Your task to perform on an android device: toggle wifi Image 0: 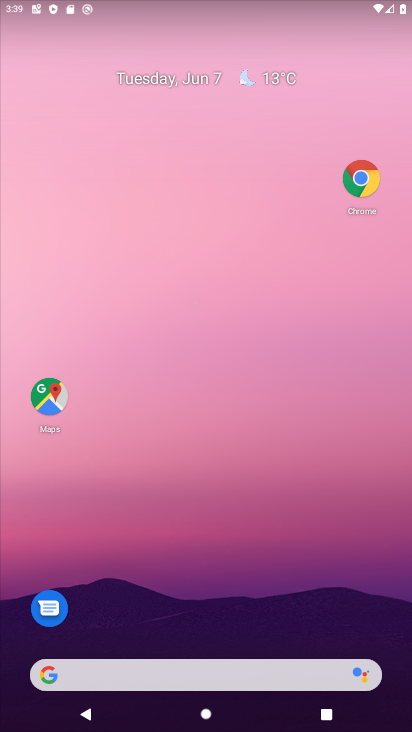
Step 0: drag from (166, 641) to (262, 106)
Your task to perform on an android device: toggle wifi Image 1: 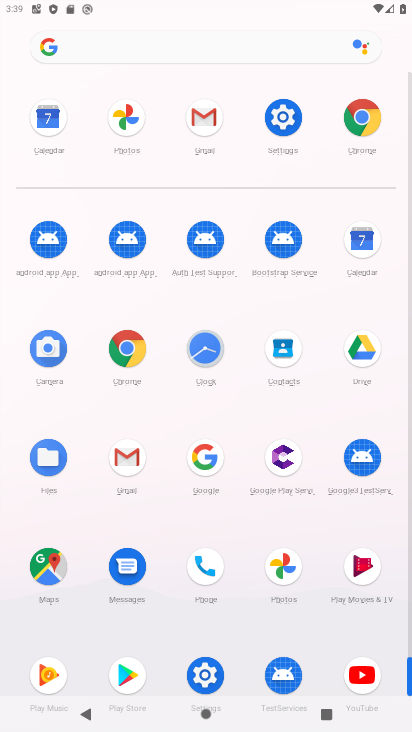
Step 1: click (222, 674)
Your task to perform on an android device: toggle wifi Image 2: 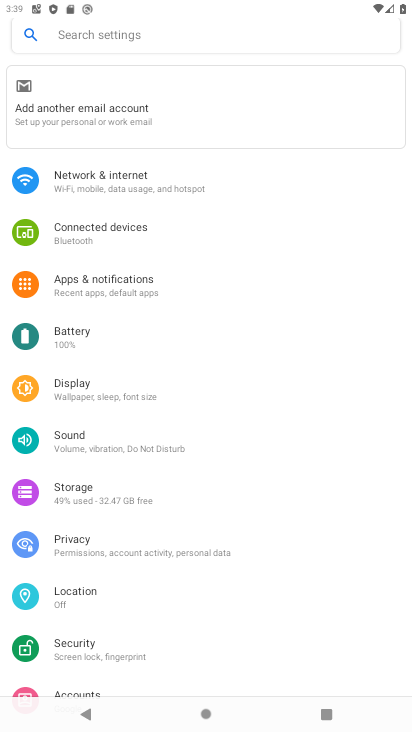
Step 2: click (168, 181)
Your task to perform on an android device: toggle wifi Image 3: 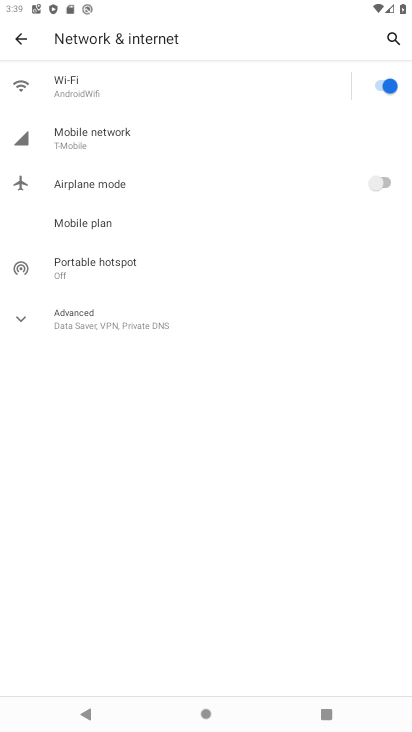
Step 3: click (378, 90)
Your task to perform on an android device: toggle wifi Image 4: 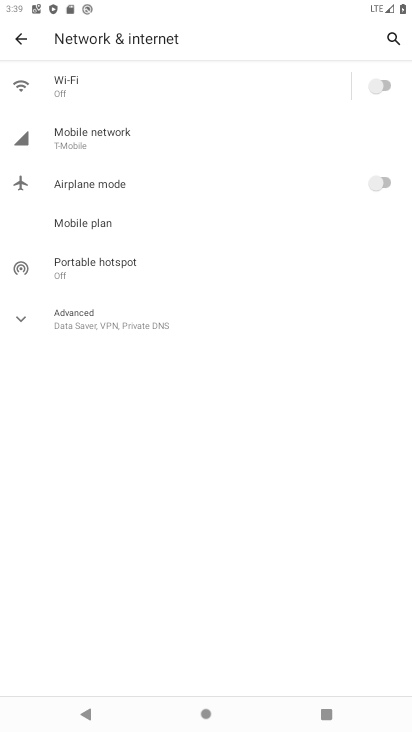
Step 4: task complete